Your task to perform on an android device: Go to Google Image 0: 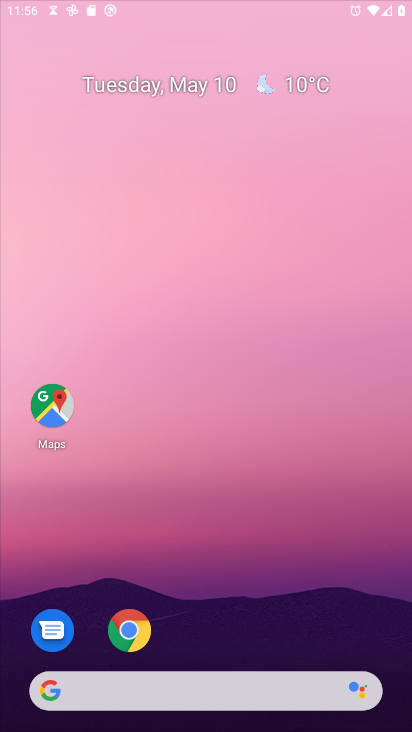
Step 0: click (245, 97)
Your task to perform on an android device: Go to Google Image 1: 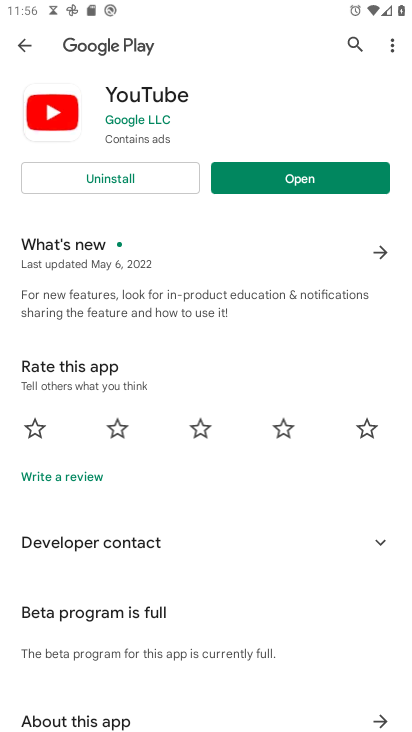
Step 1: press home button
Your task to perform on an android device: Go to Google Image 2: 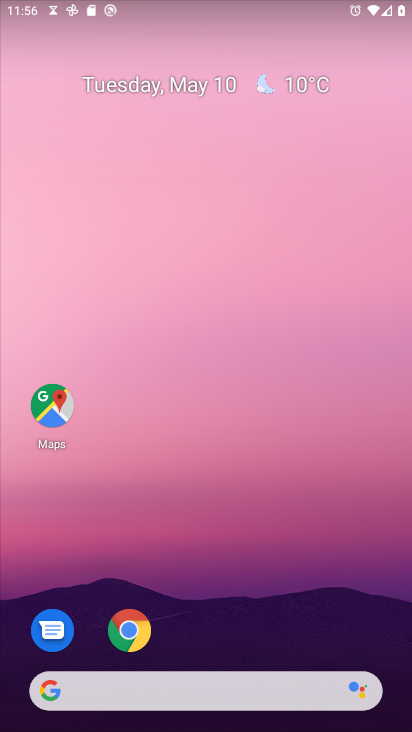
Step 2: drag from (191, 383) to (191, 106)
Your task to perform on an android device: Go to Google Image 3: 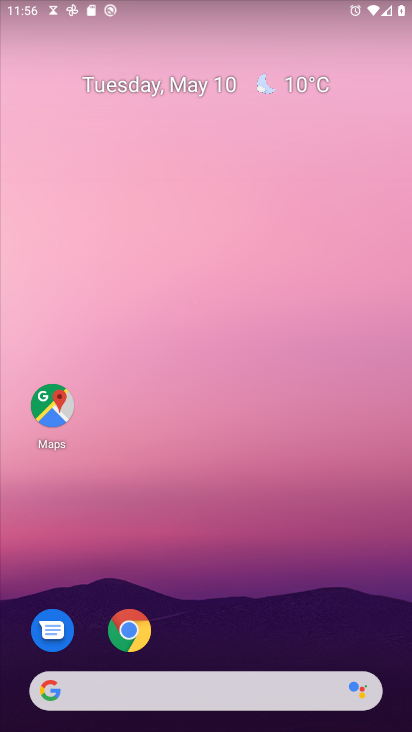
Step 3: drag from (224, 521) to (223, 114)
Your task to perform on an android device: Go to Google Image 4: 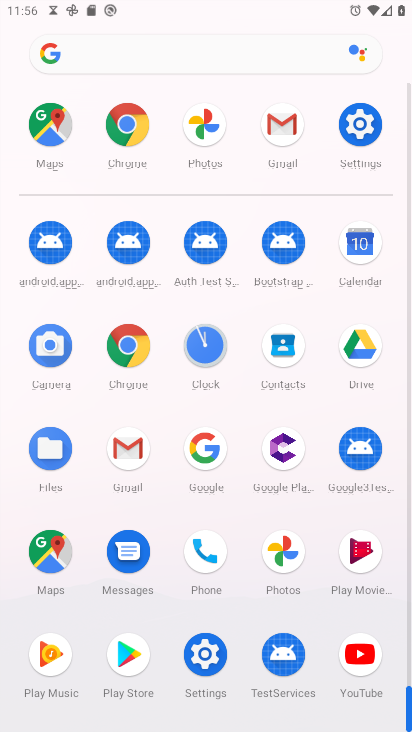
Step 4: click (205, 446)
Your task to perform on an android device: Go to Google Image 5: 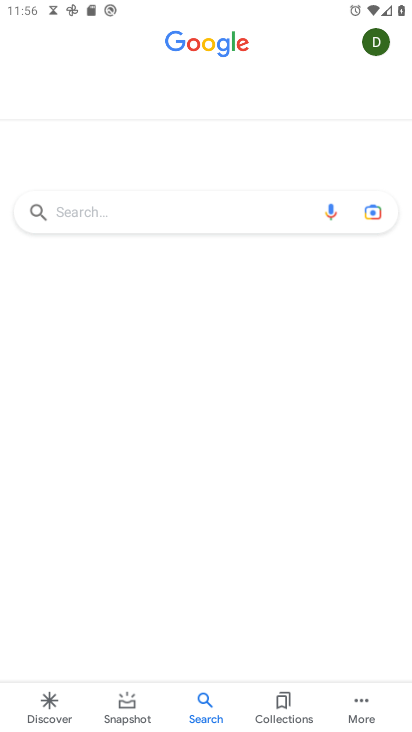
Step 5: task complete